Your task to perform on an android device: show emergency info Image 0: 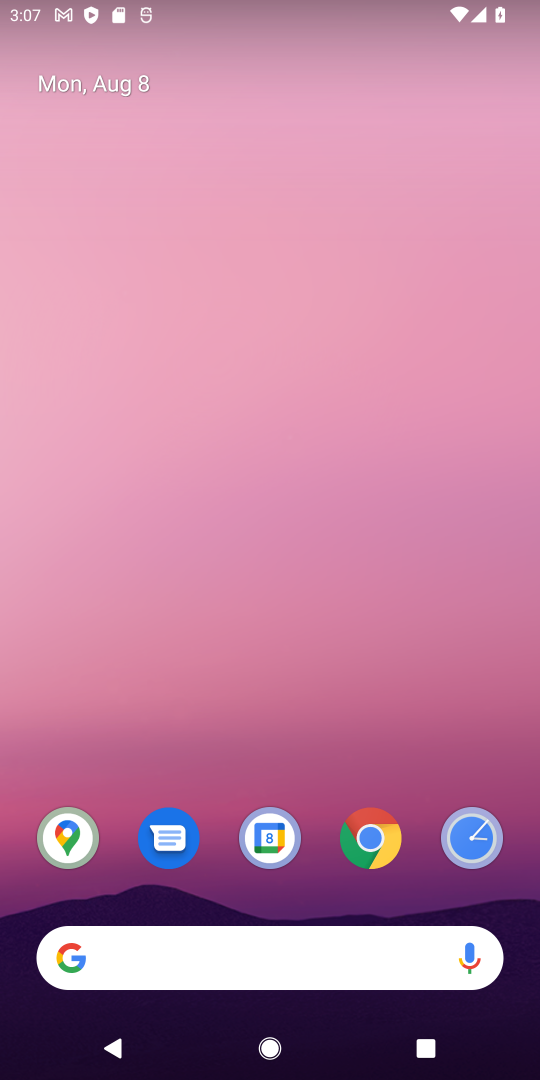
Step 0: drag from (221, 952) to (320, 414)
Your task to perform on an android device: show emergency info Image 1: 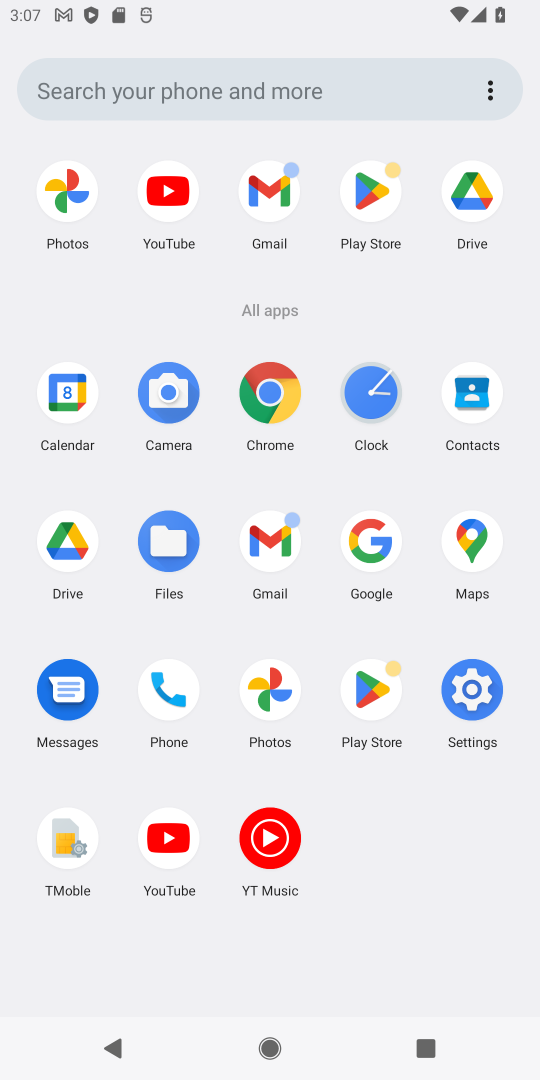
Step 1: click (471, 685)
Your task to perform on an android device: show emergency info Image 2: 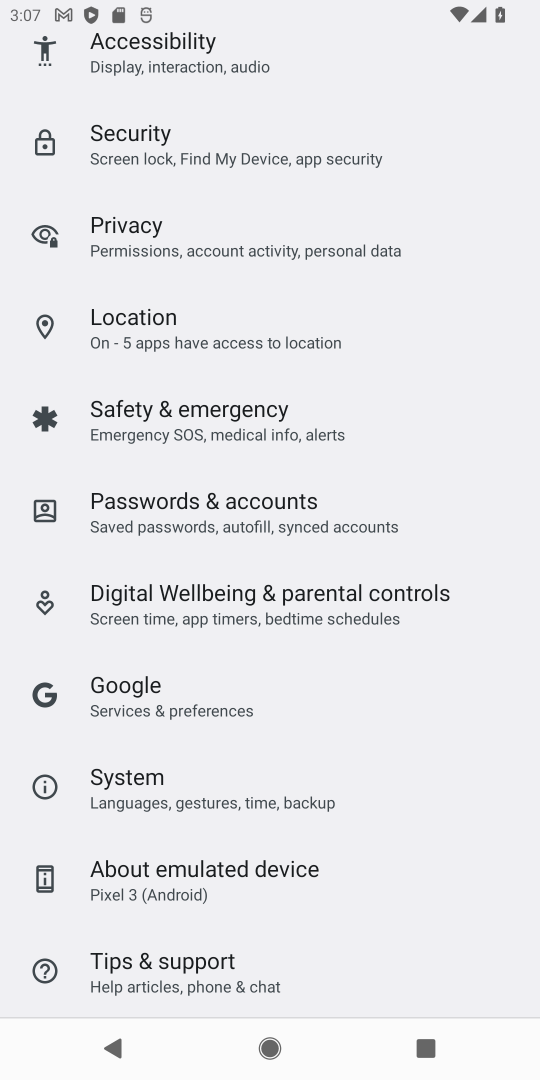
Step 2: click (214, 422)
Your task to perform on an android device: show emergency info Image 3: 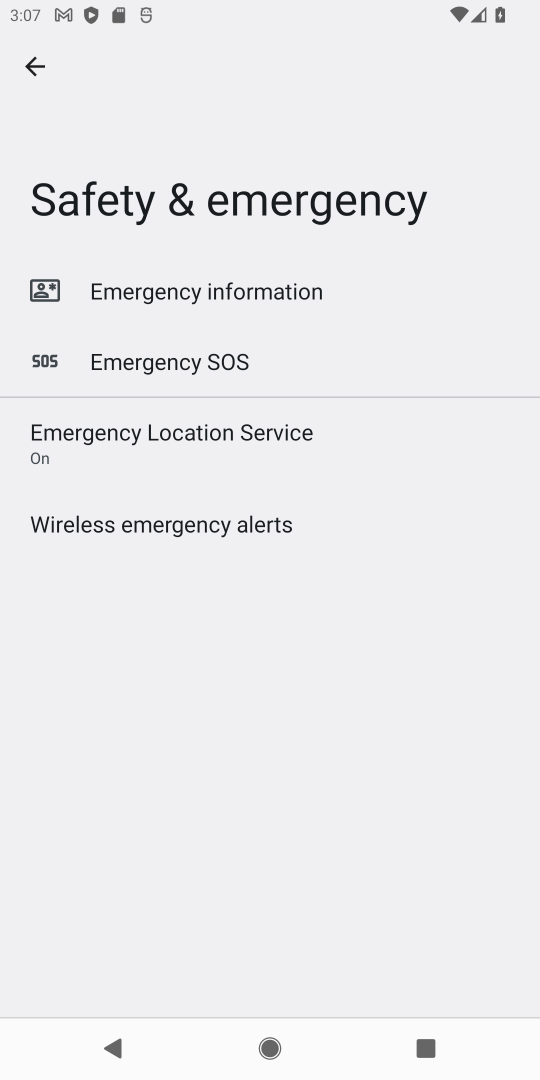
Step 3: click (270, 289)
Your task to perform on an android device: show emergency info Image 4: 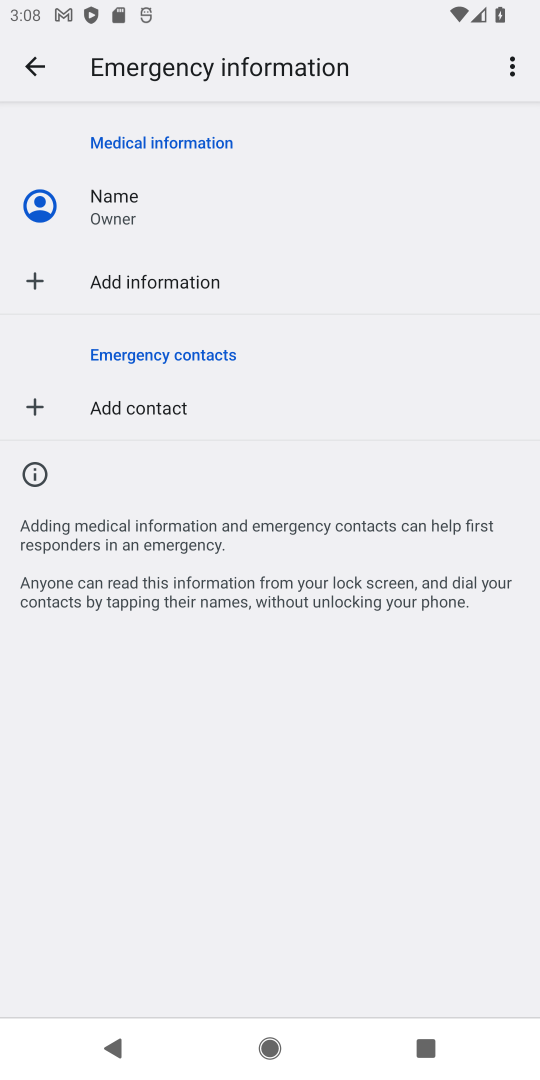
Step 4: task complete